Your task to perform on an android device: What's the weather? Image 0: 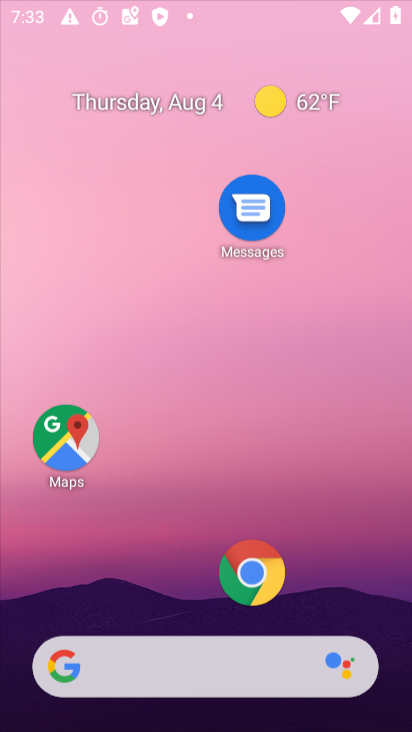
Step 0: press home button
Your task to perform on an android device: What's the weather? Image 1: 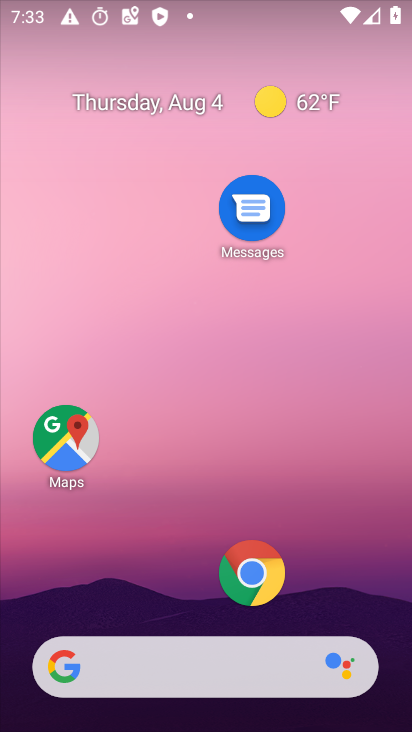
Step 1: press enter
Your task to perform on an android device: What's the weather? Image 2: 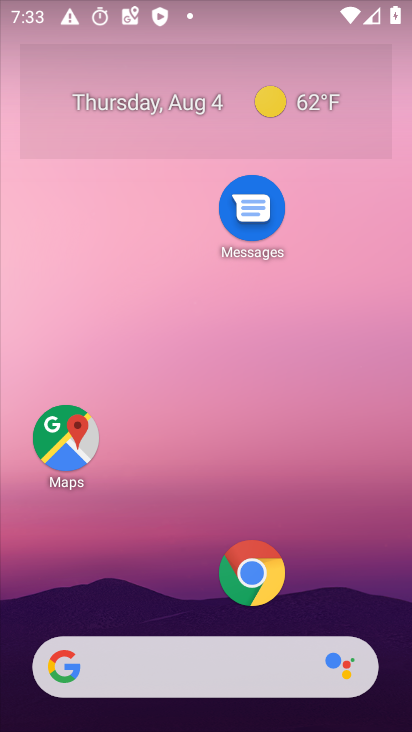
Step 2: click (76, 677)
Your task to perform on an android device: What's the weather? Image 3: 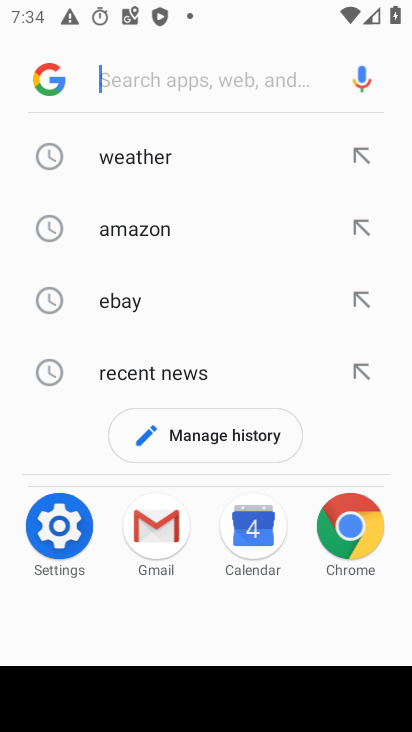
Step 3: click (145, 154)
Your task to perform on an android device: What's the weather? Image 4: 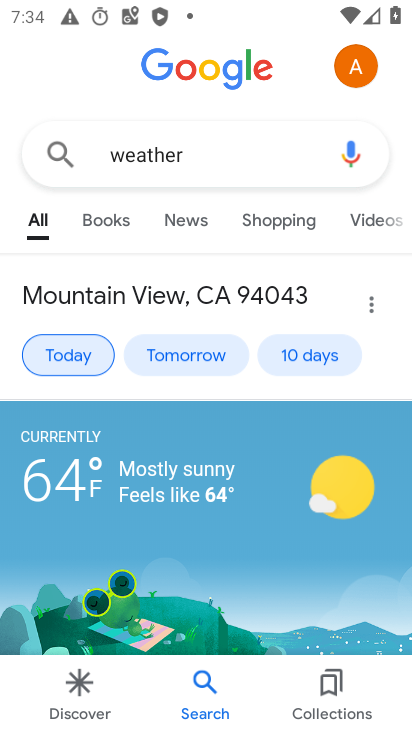
Step 4: task complete